Your task to perform on an android device: empty trash in the gmail app Image 0: 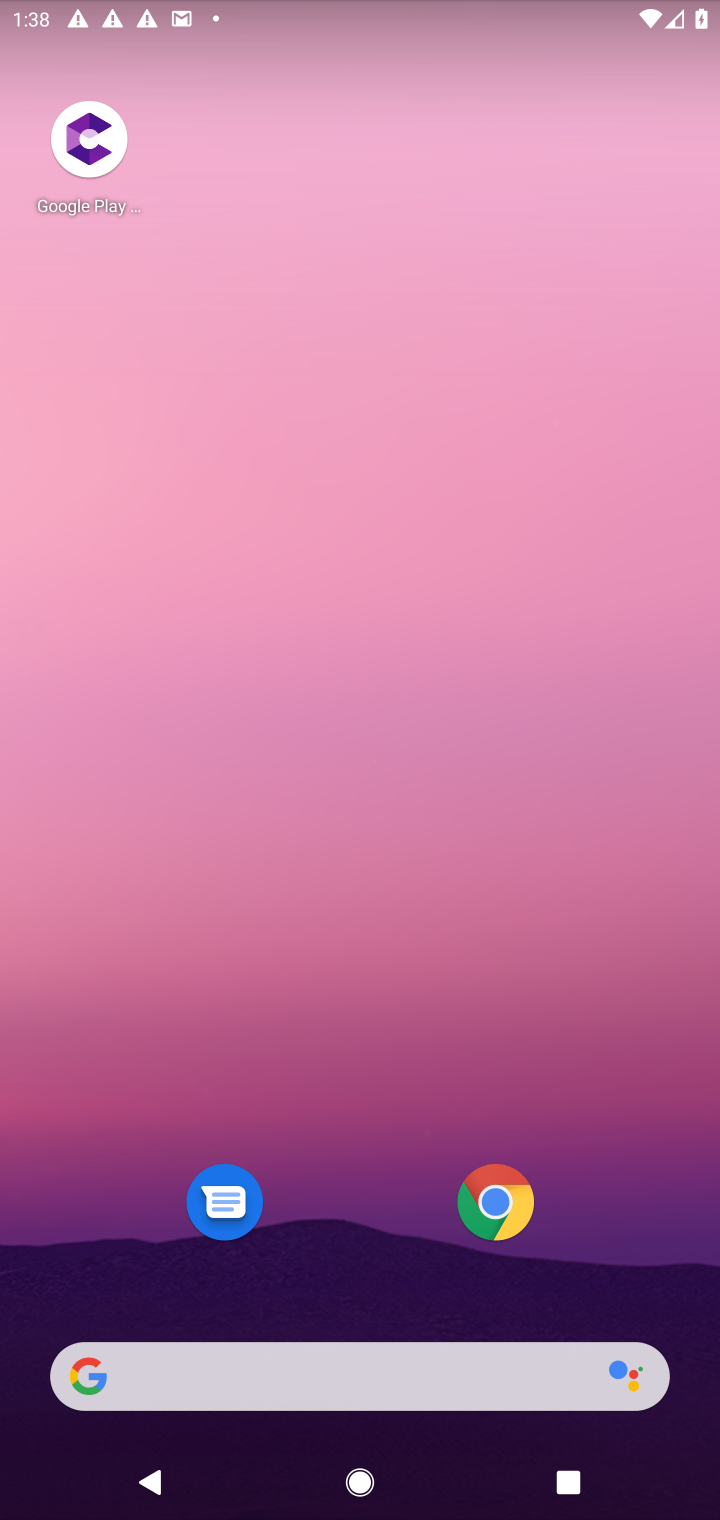
Step 0: drag from (393, 1269) to (445, 313)
Your task to perform on an android device: empty trash in the gmail app Image 1: 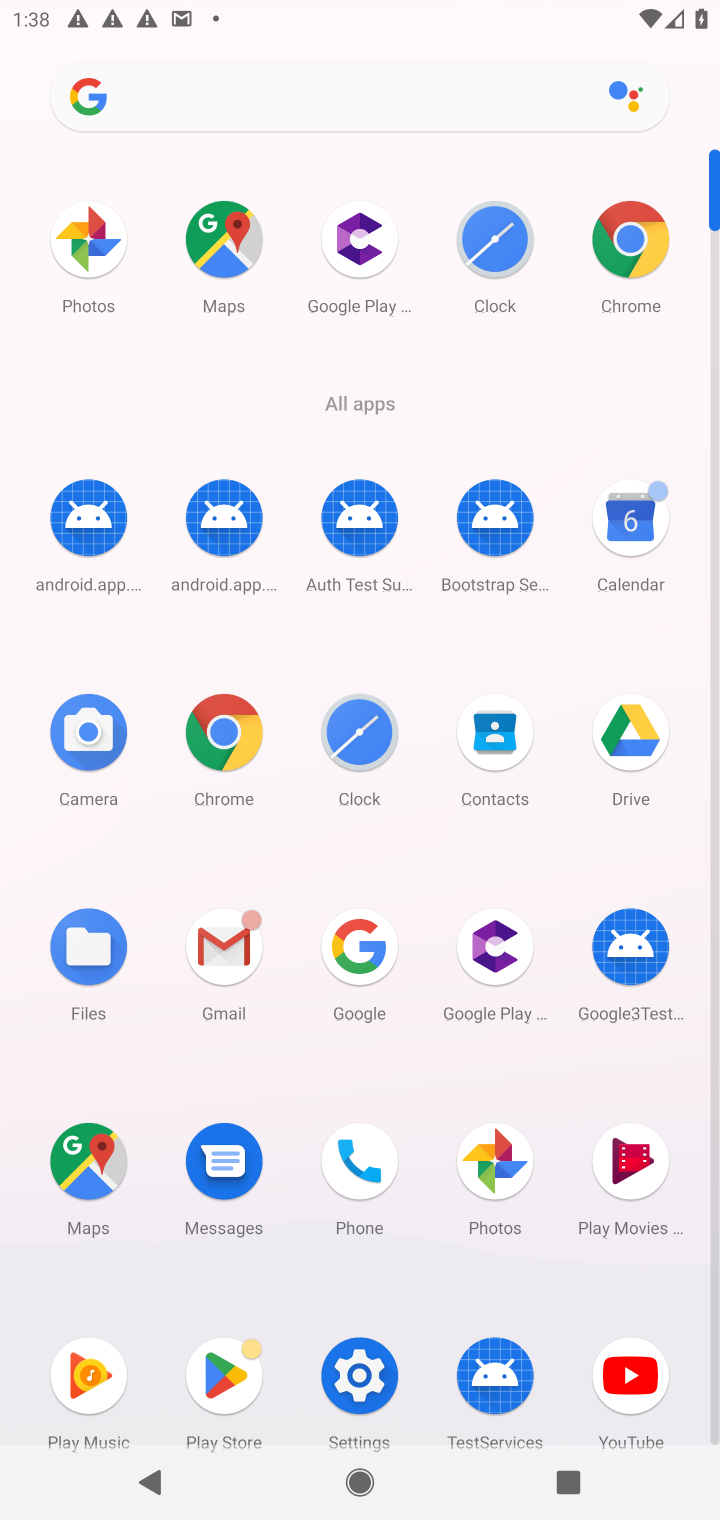
Step 1: click (225, 938)
Your task to perform on an android device: empty trash in the gmail app Image 2: 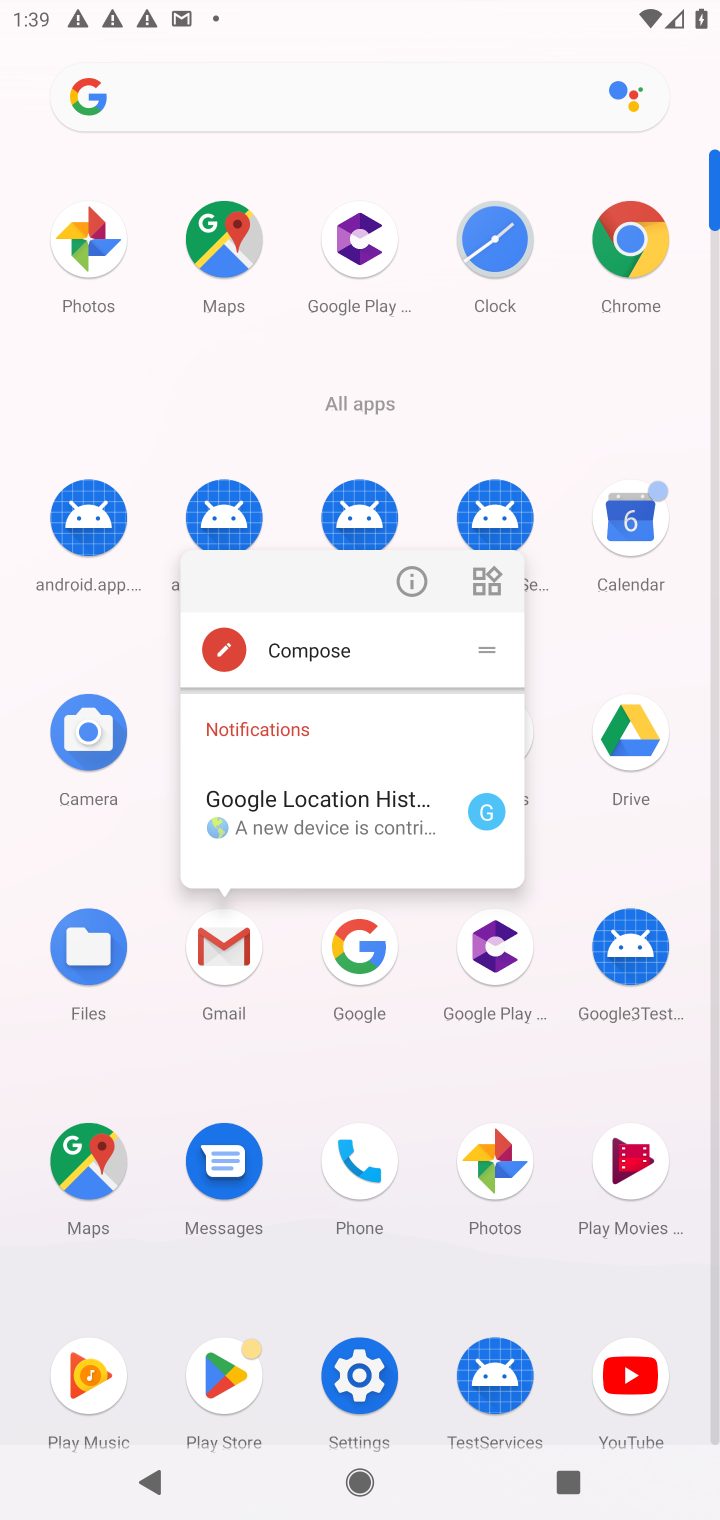
Step 2: click (247, 960)
Your task to perform on an android device: empty trash in the gmail app Image 3: 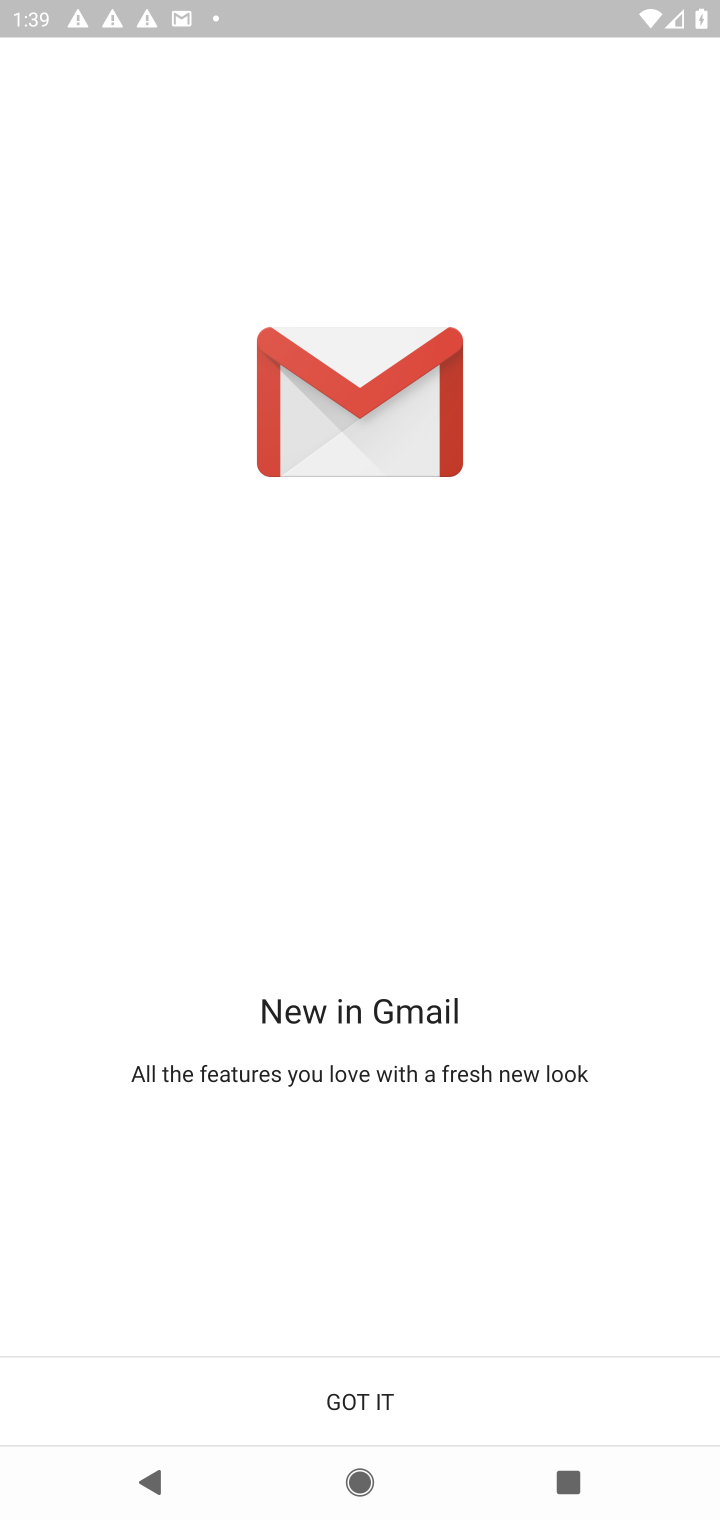
Step 3: click (340, 1402)
Your task to perform on an android device: empty trash in the gmail app Image 4: 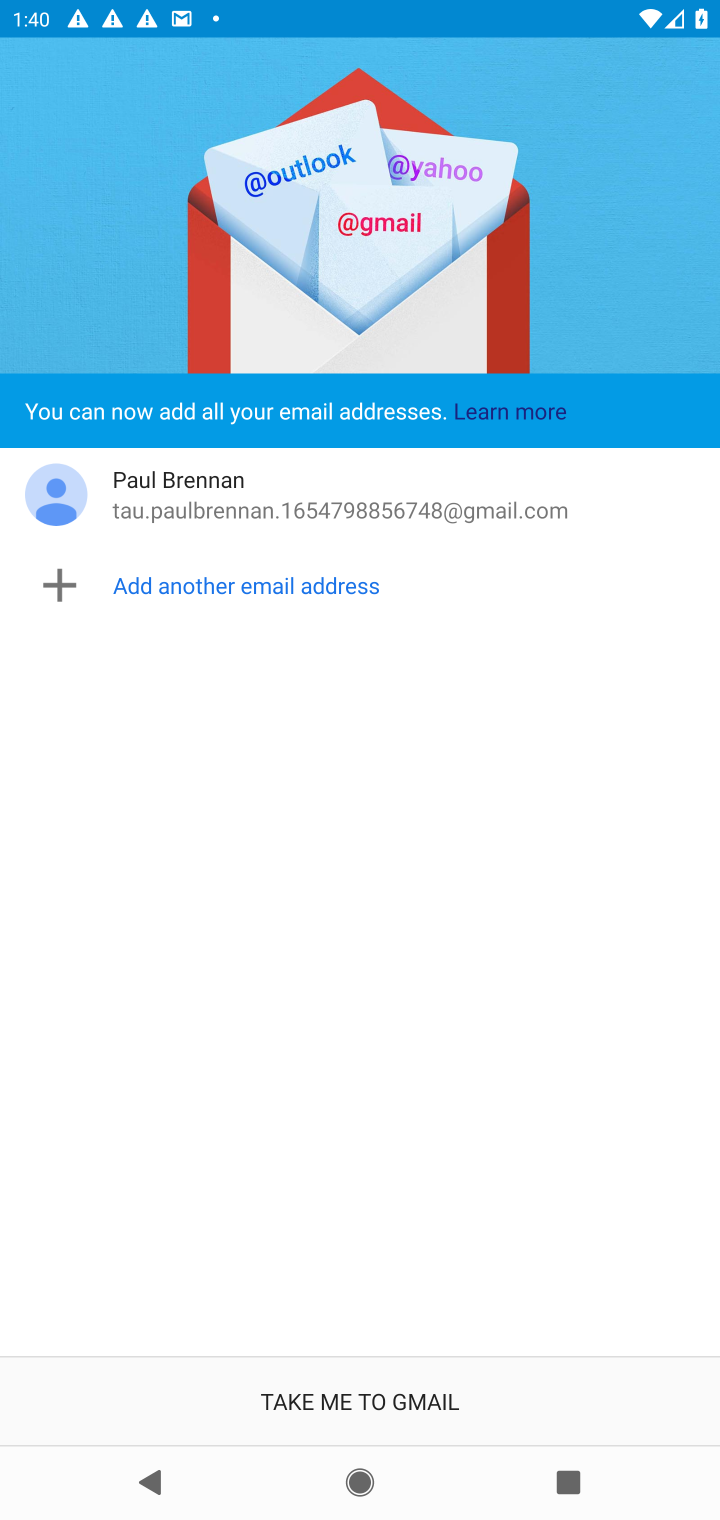
Step 4: click (340, 1400)
Your task to perform on an android device: empty trash in the gmail app Image 5: 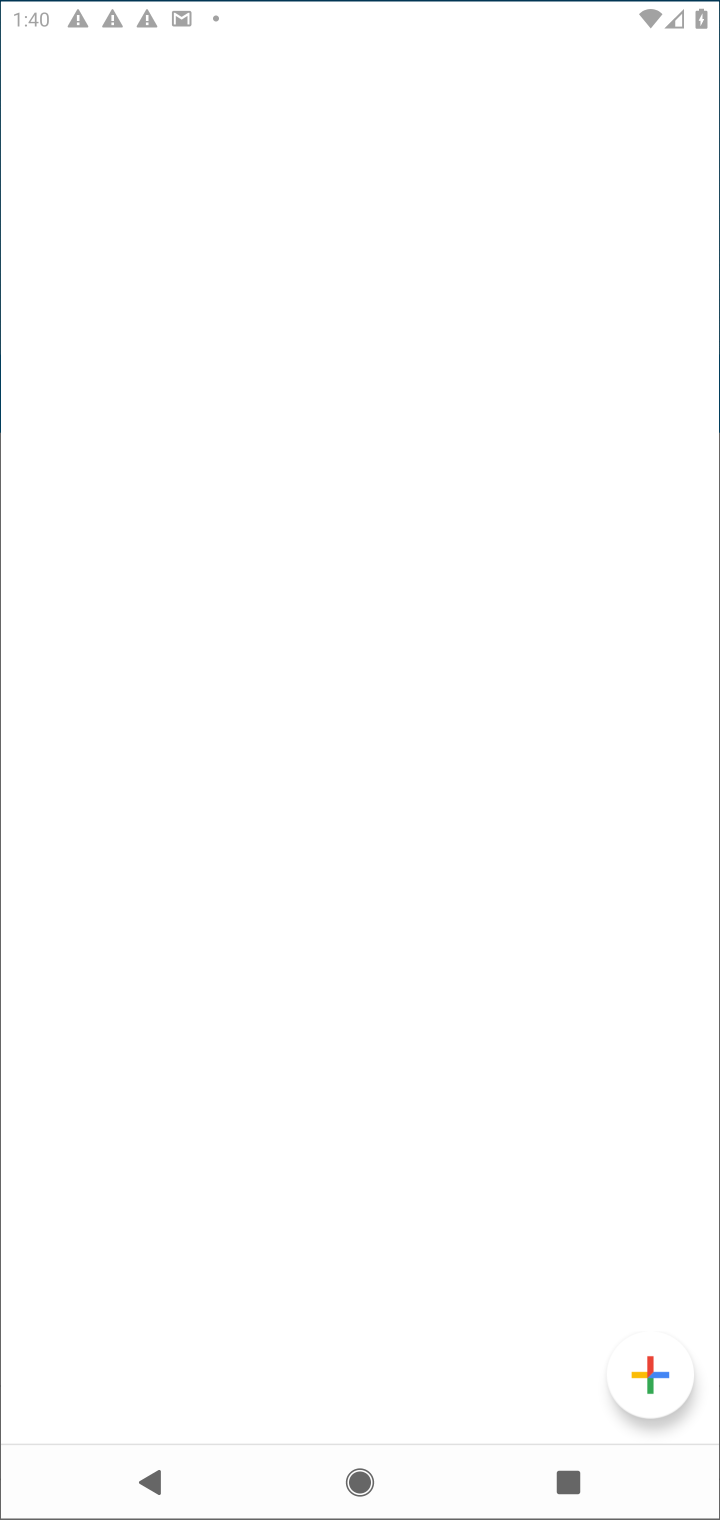
Step 5: click (340, 1400)
Your task to perform on an android device: empty trash in the gmail app Image 6: 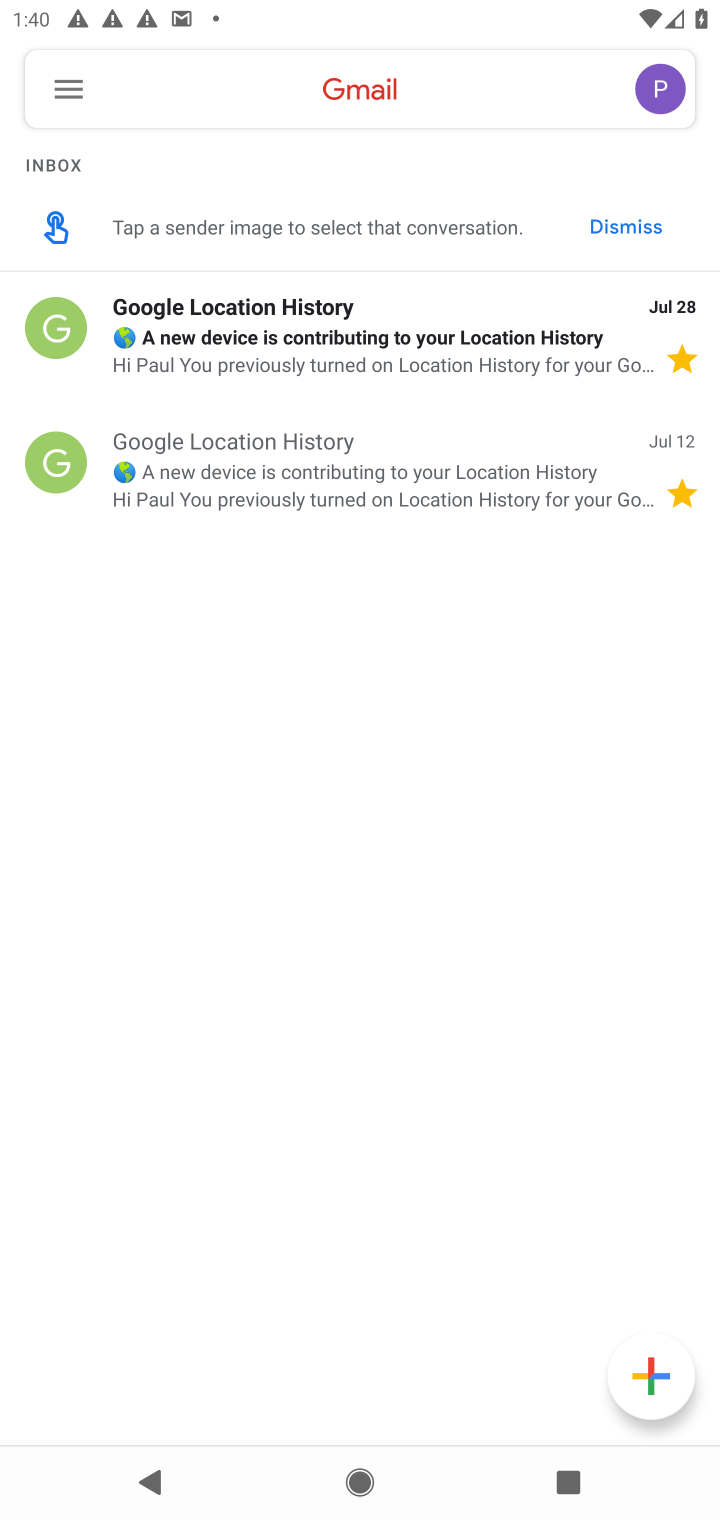
Step 6: click (71, 85)
Your task to perform on an android device: empty trash in the gmail app Image 7: 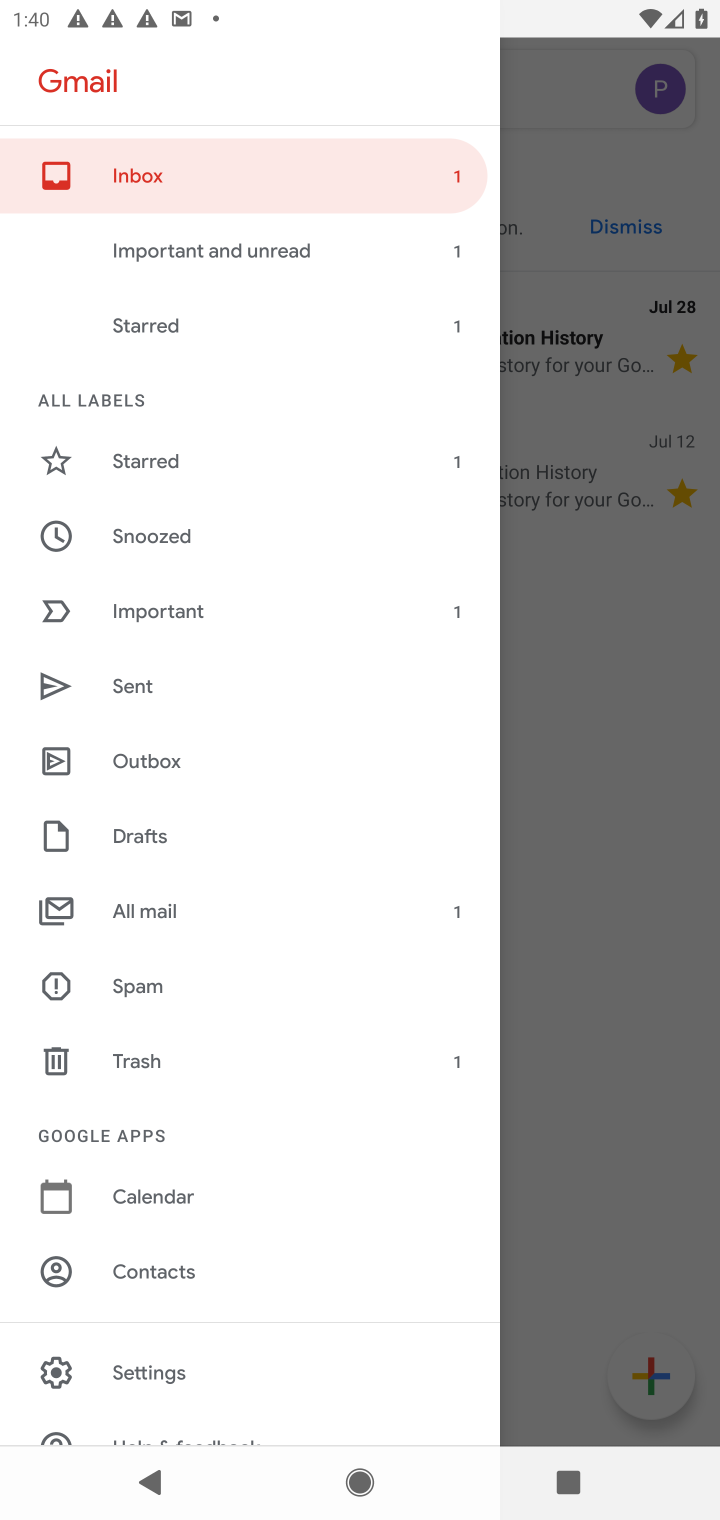
Step 7: click (144, 1059)
Your task to perform on an android device: empty trash in the gmail app Image 8: 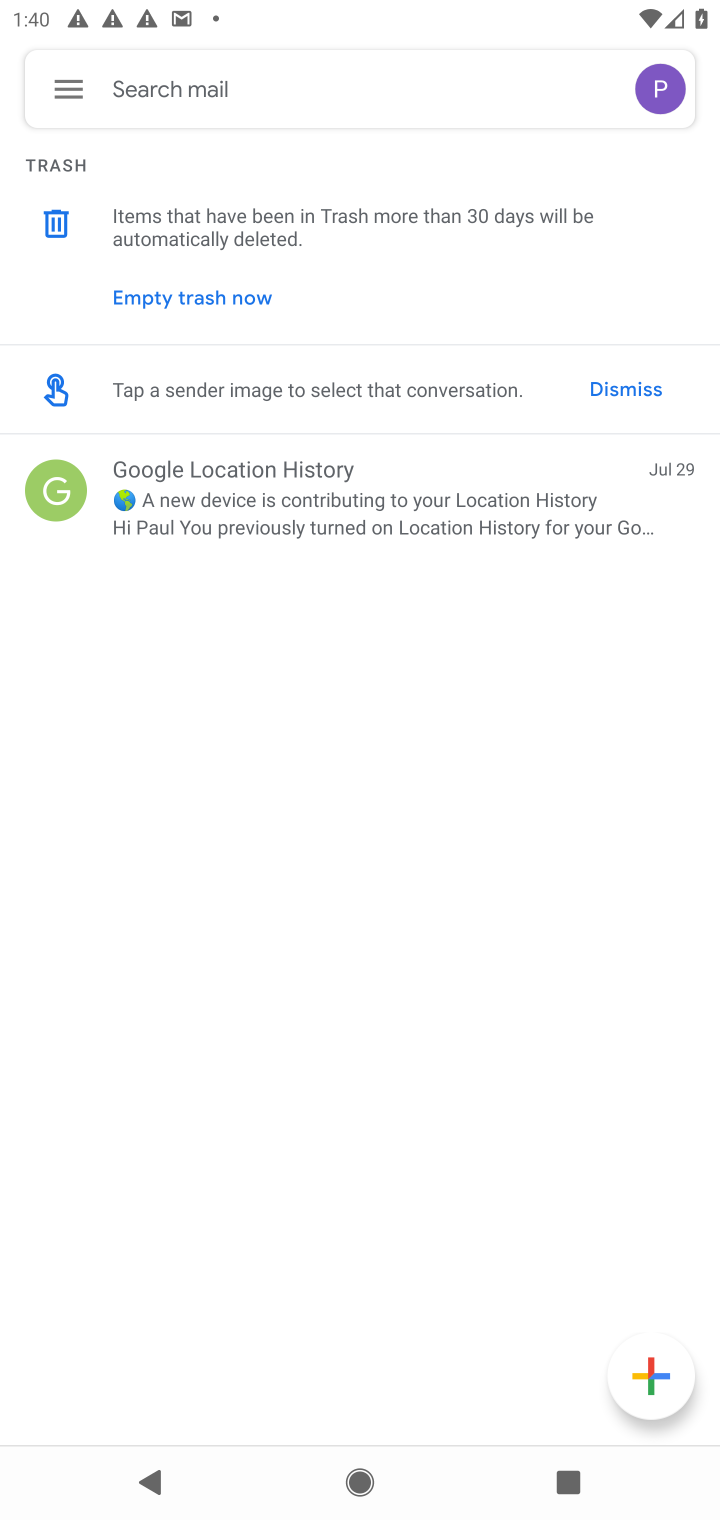
Step 8: task complete